Your task to perform on an android device: turn off location Image 0: 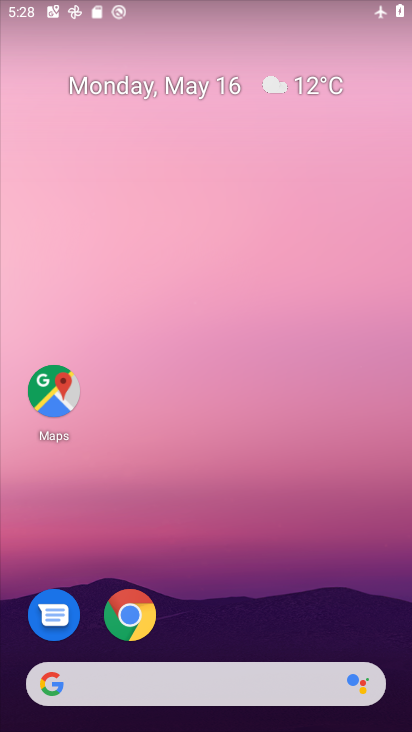
Step 0: drag from (196, 640) to (196, 76)
Your task to perform on an android device: turn off location Image 1: 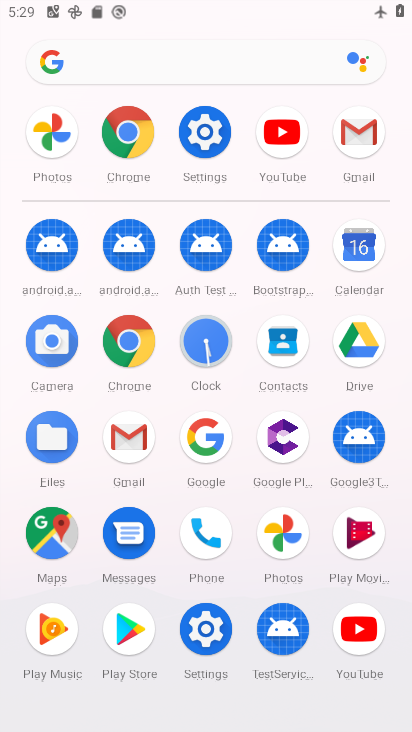
Step 1: click (207, 633)
Your task to perform on an android device: turn off location Image 2: 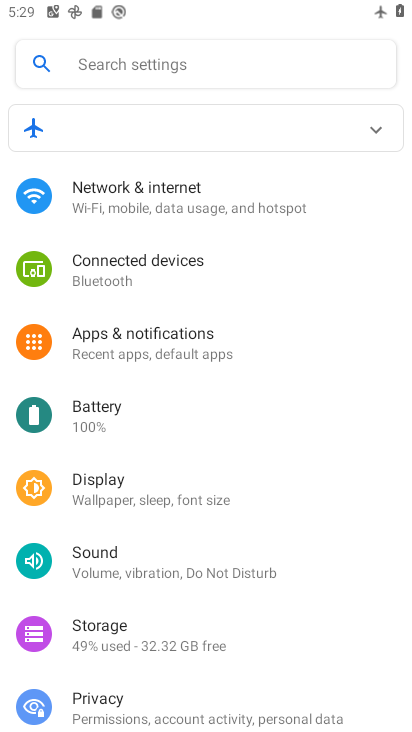
Step 2: drag from (128, 656) to (189, 333)
Your task to perform on an android device: turn off location Image 3: 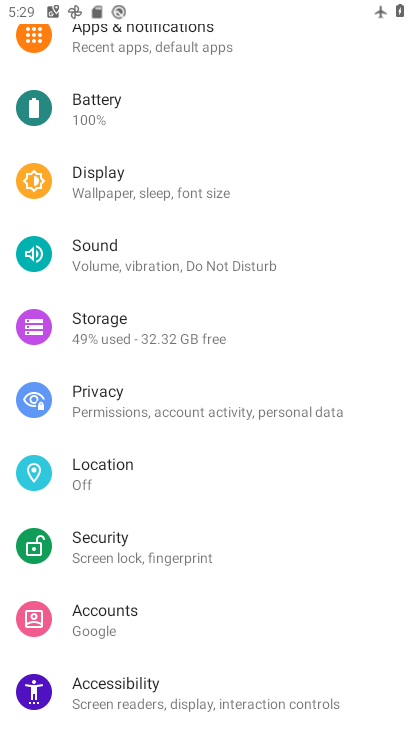
Step 3: click (100, 490)
Your task to perform on an android device: turn off location Image 4: 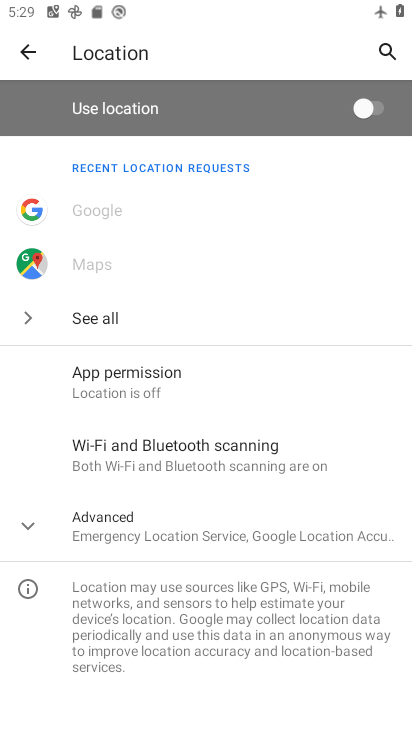
Step 4: task complete